Your task to perform on an android device: choose inbox layout in the gmail app Image 0: 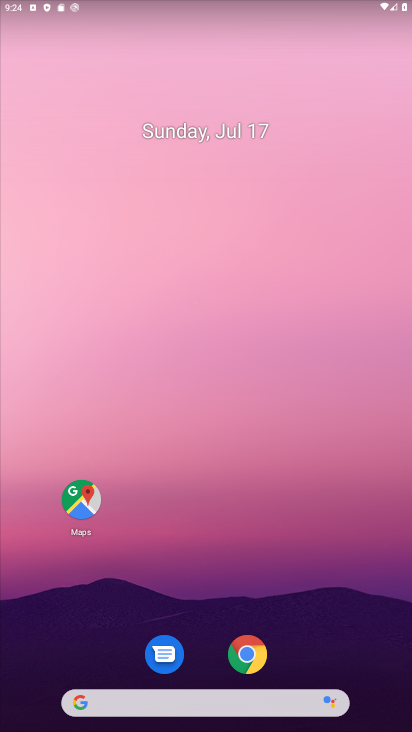
Step 0: drag from (213, 665) to (223, 28)
Your task to perform on an android device: choose inbox layout in the gmail app Image 1: 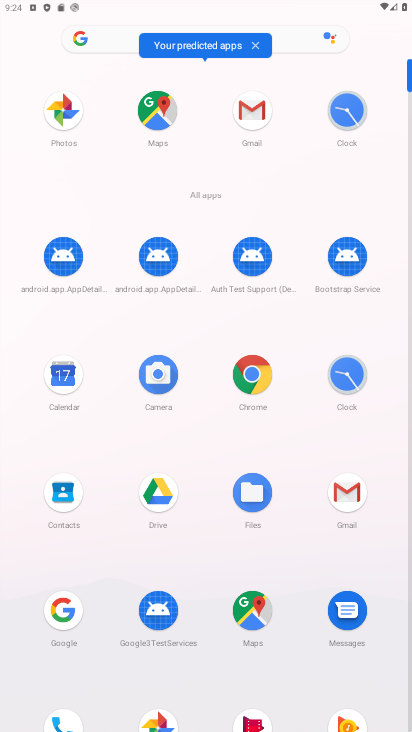
Step 1: click (248, 144)
Your task to perform on an android device: choose inbox layout in the gmail app Image 2: 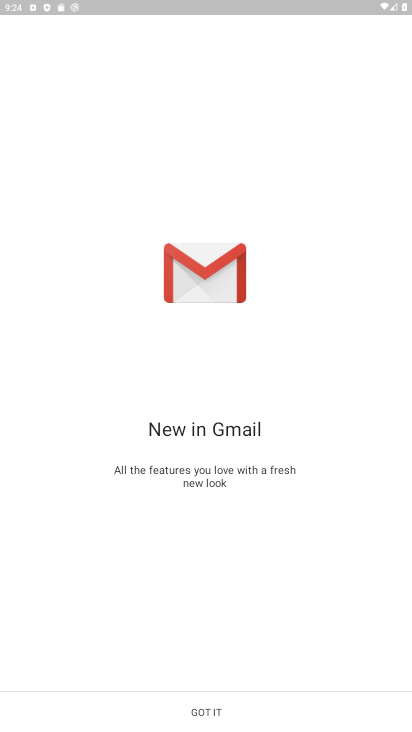
Step 2: click (224, 710)
Your task to perform on an android device: choose inbox layout in the gmail app Image 3: 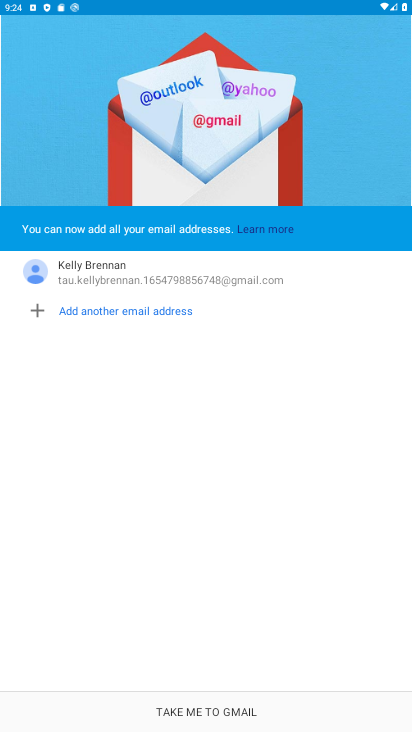
Step 3: click (204, 719)
Your task to perform on an android device: choose inbox layout in the gmail app Image 4: 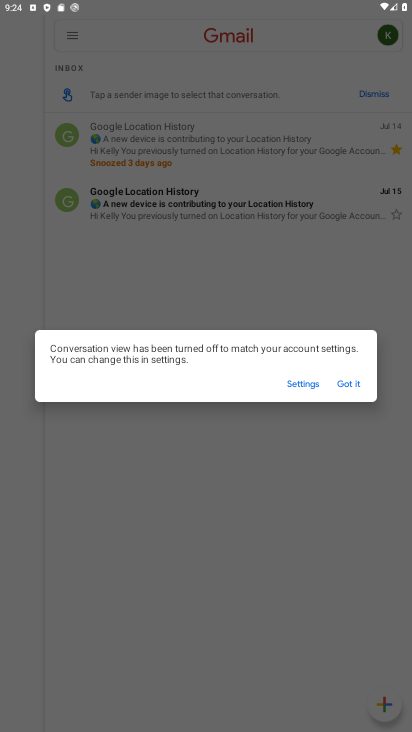
Step 4: click (344, 385)
Your task to perform on an android device: choose inbox layout in the gmail app Image 5: 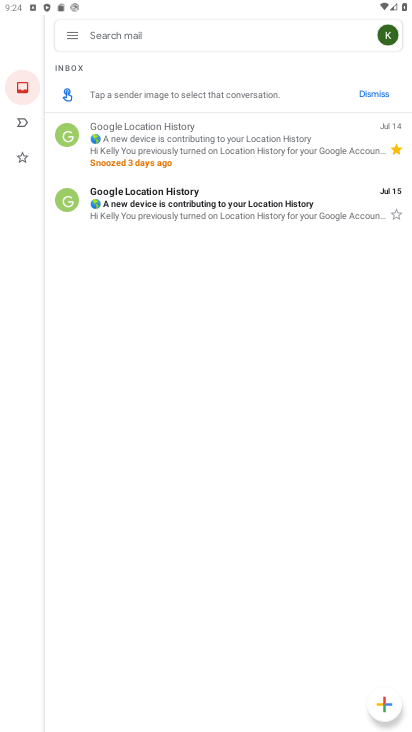
Step 5: click (75, 35)
Your task to perform on an android device: choose inbox layout in the gmail app Image 6: 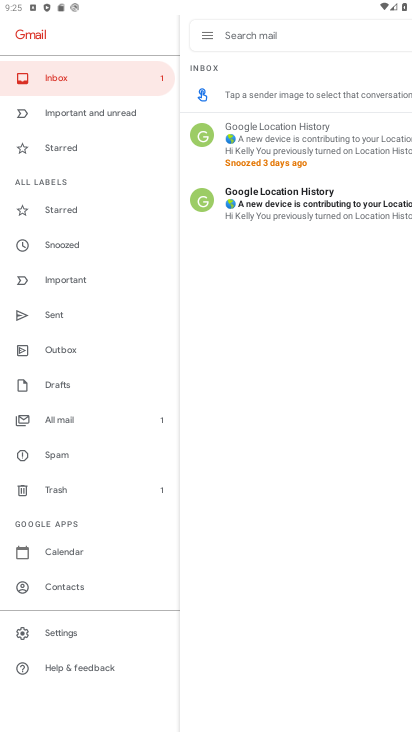
Step 6: click (60, 639)
Your task to perform on an android device: choose inbox layout in the gmail app Image 7: 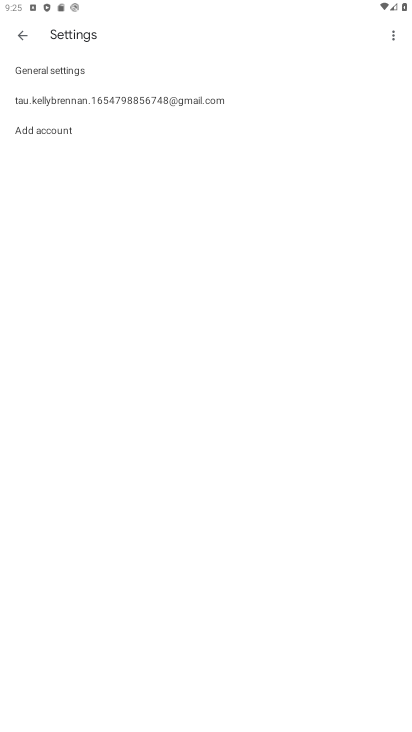
Step 7: click (132, 104)
Your task to perform on an android device: choose inbox layout in the gmail app Image 8: 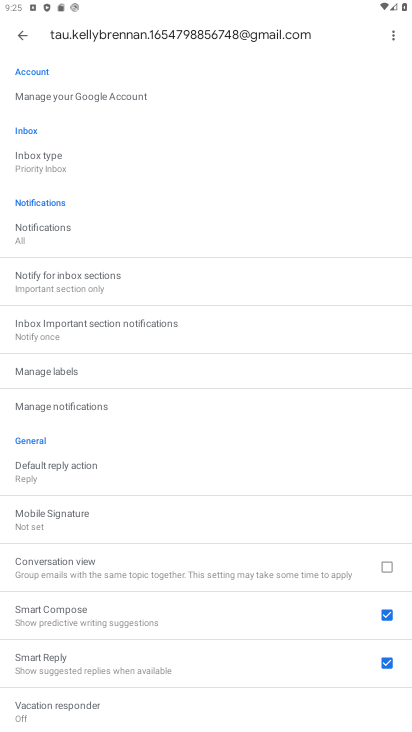
Step 8: click (109, 163)
Your task to perform on an android device: choose inbox layout in the gmail app Image 9: 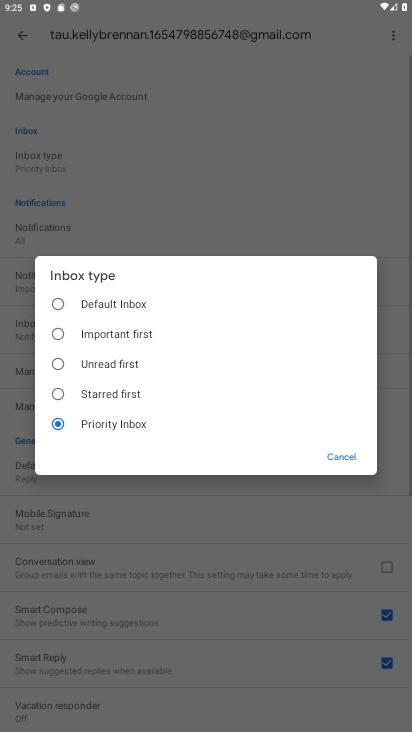
Step 9: click (118, 302)
Your task to perform on an android device: choose inbox layout in the gmail app Image 10: 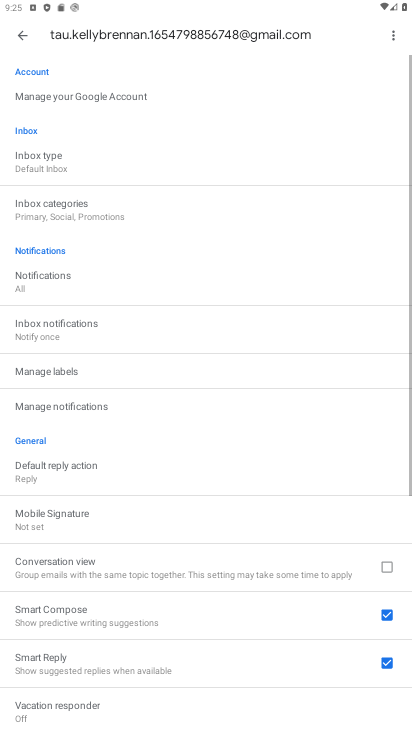
Step 10: task complete